Your task to perform on an android device: turn smart compose on in the gmail app Image 0: 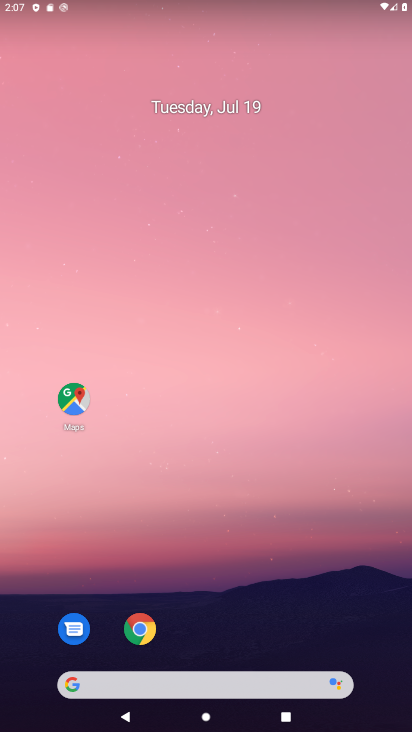
Step 0: drag from (214, 658) to (259, 184)
Your task to perform on an android device: turn smart compose on in the gmail app Image 1: 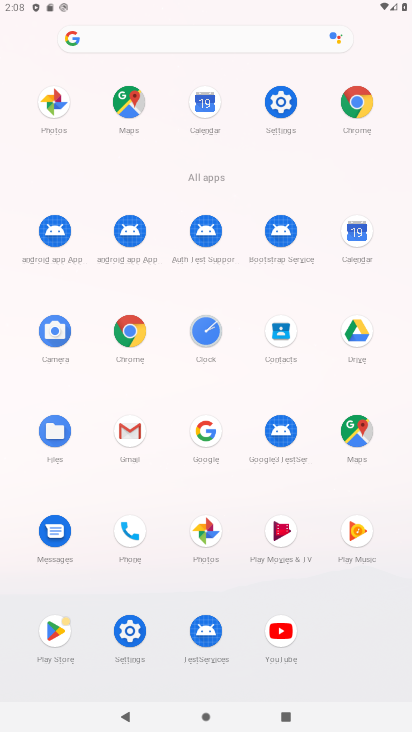
Step 1: click (132, 441)
Your task to perform on an android device: turn smart compose on in the gmail app Image 2: 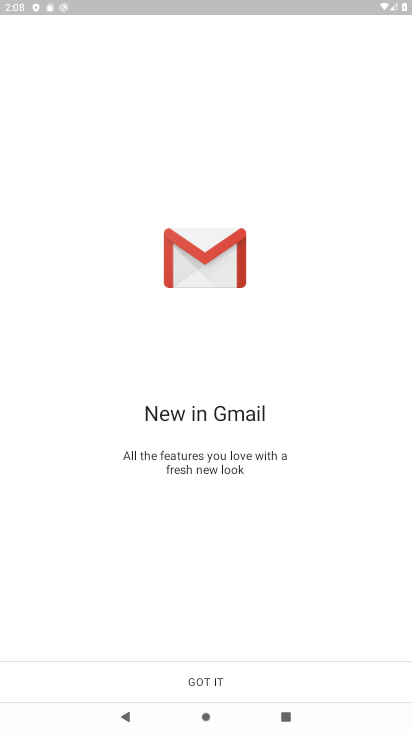
Step 2: click (208, 675)
Your task to perform on an android device: turn smart compose on in the gmail app Image 3: 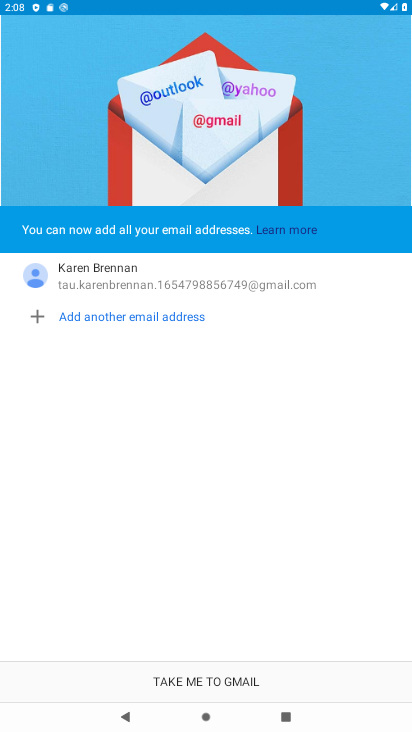
Step 3: click (220, 681)
Your task to perform on an android device: turn smart compose on in the gmail app Image 4: 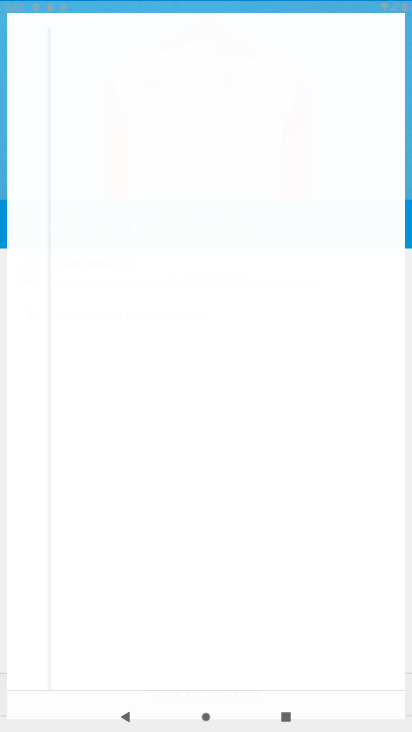
Step 4: click (220, 681)
Your task to perform on an android device: turn smart compose on in the gmail app Image 5: 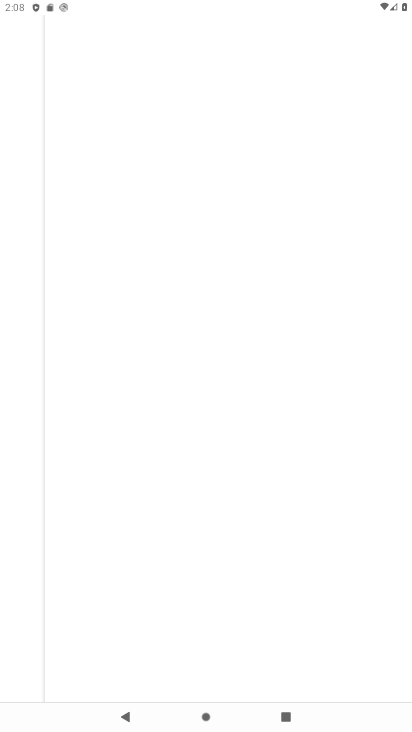
Step 5: click (220, 681)
Your task to perform on an android device: turn smart compose on in the gmail app Image 6: 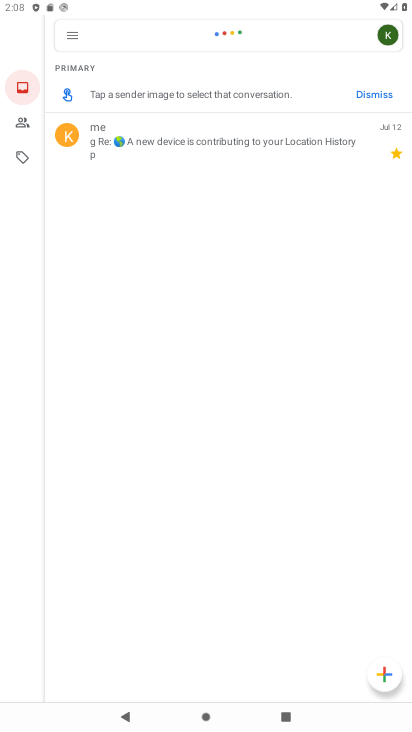
Step 6: click (84, 36)
Your task to perform on an android device: turn smart compose on in the gmail app Image 7: 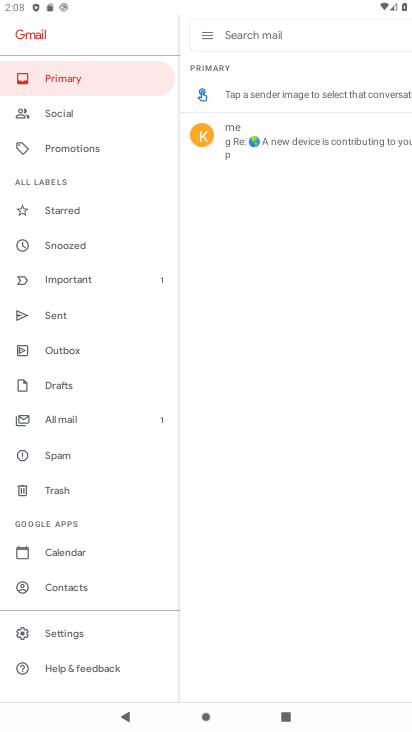
Step 7: click (81, 629)
Your task to perform on an android device: turn smart compose on in the gmail app Image 8: 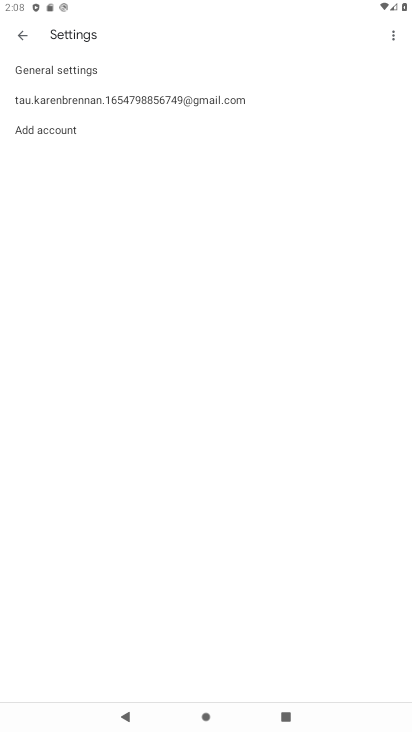
Step 8: click (234, 101)
Your task to perform on an android device: turn smart compose on in the gmail app Image 9: 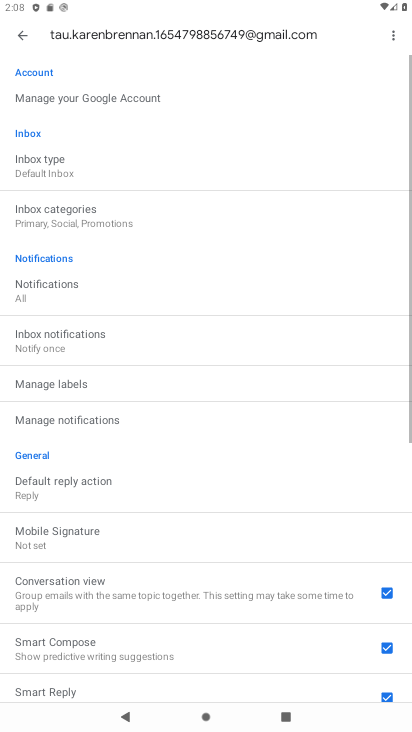
Step 9: task complete